Your task to perform on an android device: turn off smart reply in the gmail app Image 0: 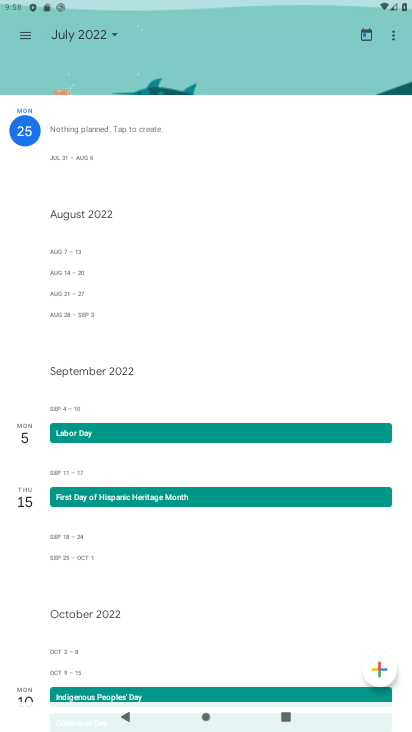
Step 0: press home button
Your task to perform on an android device: turn off smart reply in the gmail app Image 1: 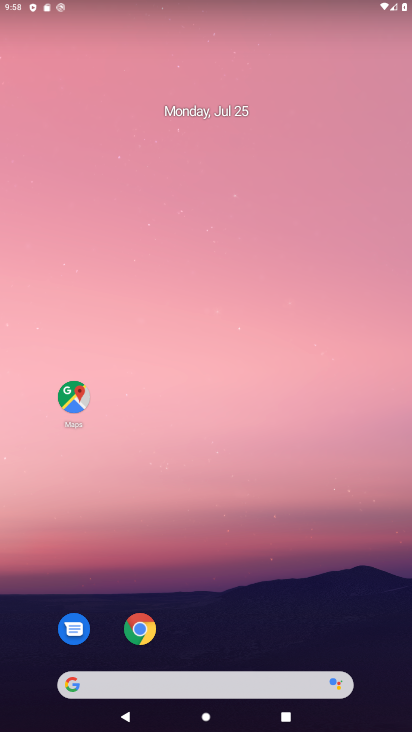
Step 1: click (282, 643)
Your task to perform on an android device: turn off smart reply in the gmail app Image 2: 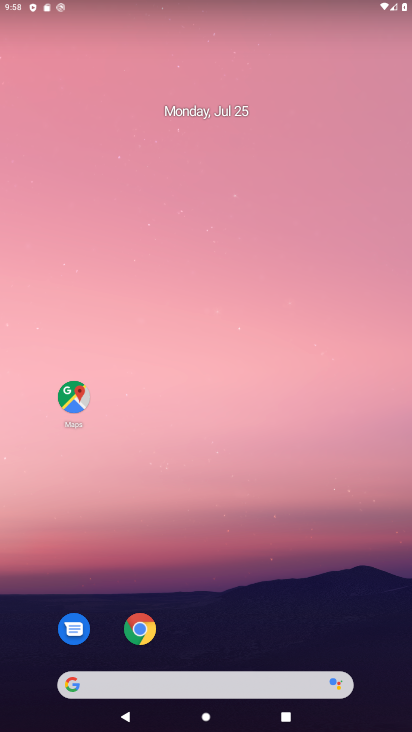
Step 2: drag from (249, 595) to (331, 155)
Your task to perform on an android device: turn off smart reply in the gmail app Image 3: 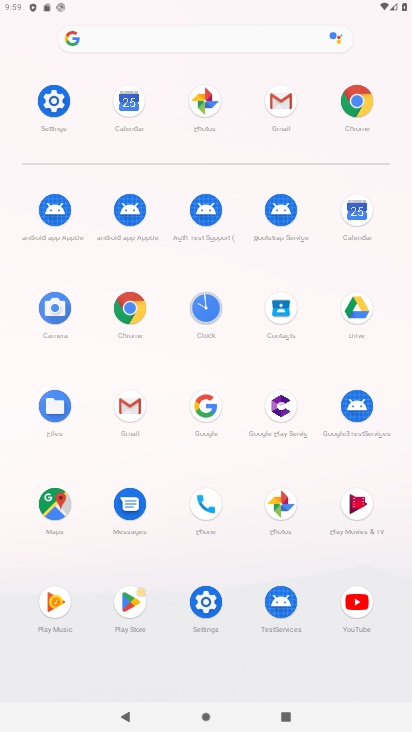
Step 3: click (275, 106)
Your task to perform on an android device: turn off smart reply in the gmail app Image 4: 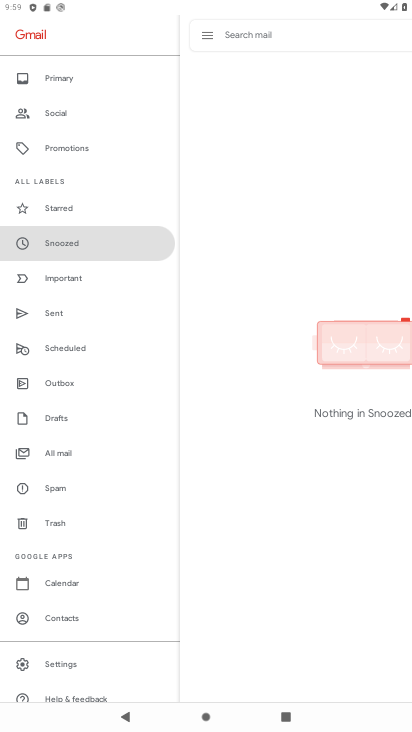
Step 4: click (67, 657)
Your task to perform on an android device: turn off smart reply in the gmail app Image 5: 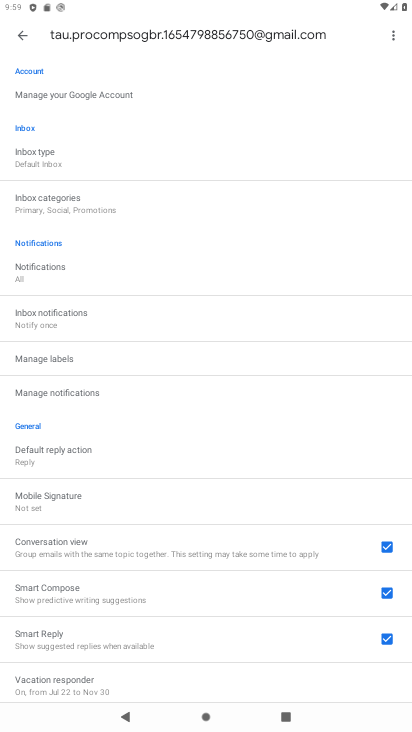
Step 5: click (387, 639)
Your task to perform on an android device: turn off smart reply in the gmail app Image 6: 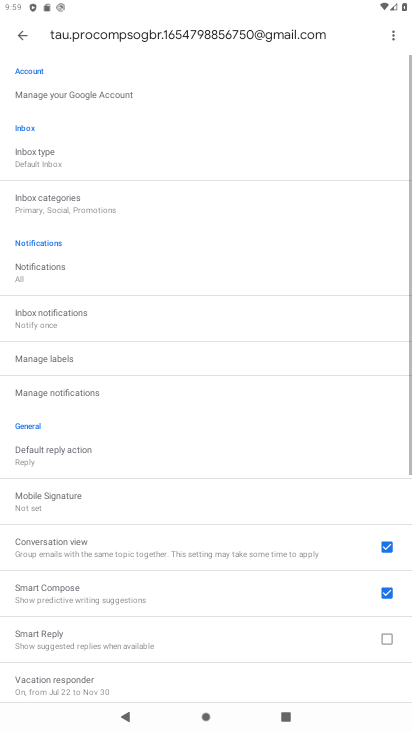
Step 6: task complete